Your task to perform on an android device: Open the map Image 0: 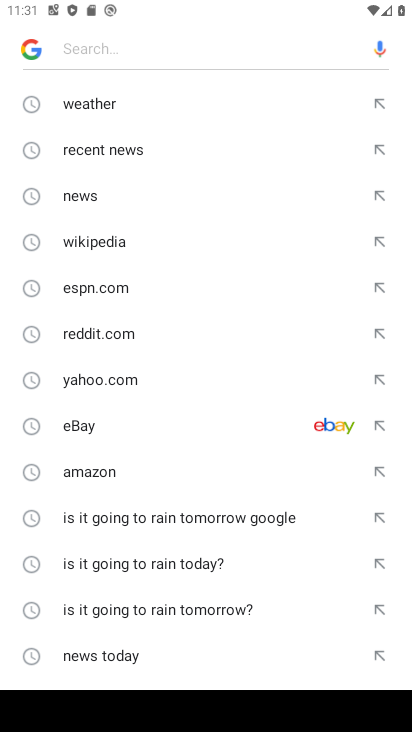
Step 0: press back button
Your task to perform on an android device: Open the map Image 1: 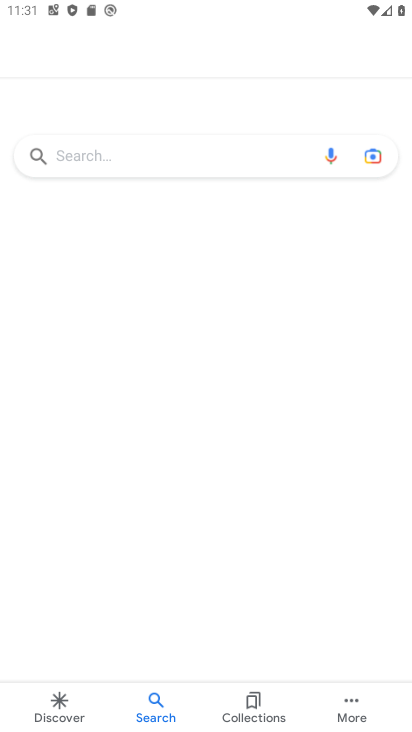
Step 1: press back button
Your task to perform on an android device: Open the map Image 2: 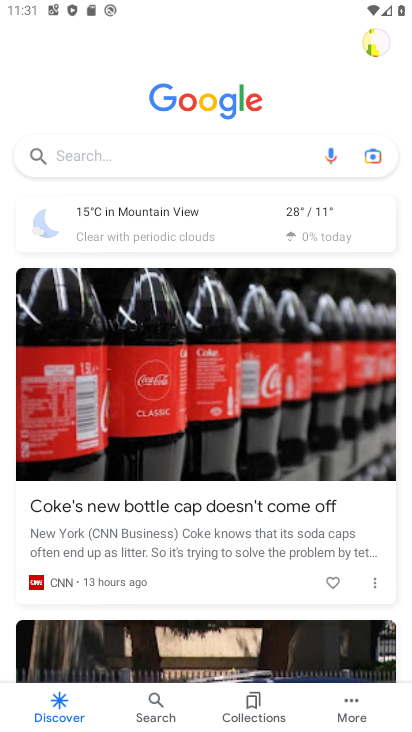
Step 2: press back button
Your task to perform on an android device: Open the map Image 3: 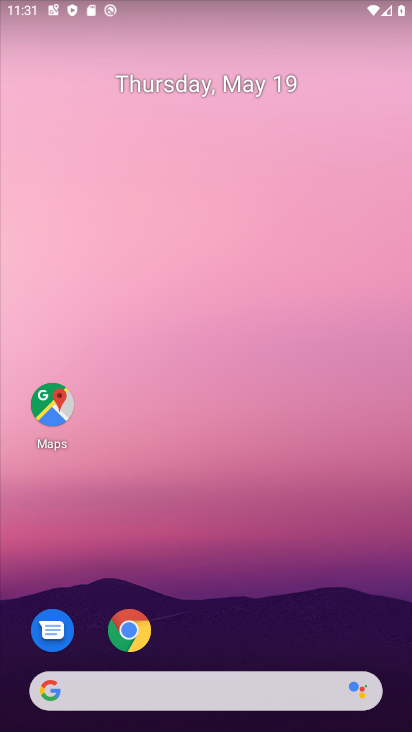
Step 3: click (51, 406)
Your task to perform on an android device: Open the map Image 4: 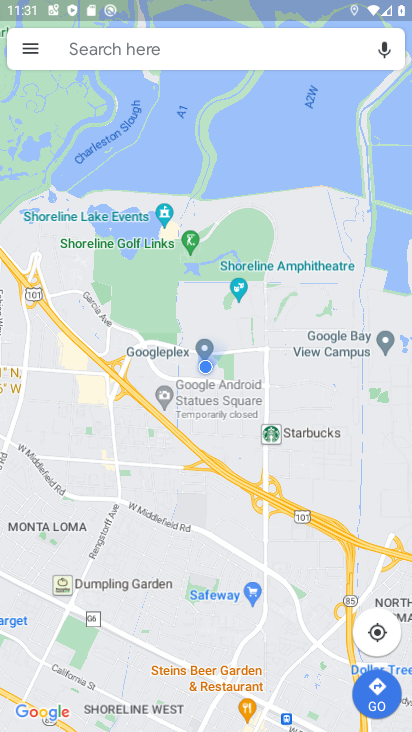
Step 4: task complete